Your task to perform on an android device: Open display settings Image 0: 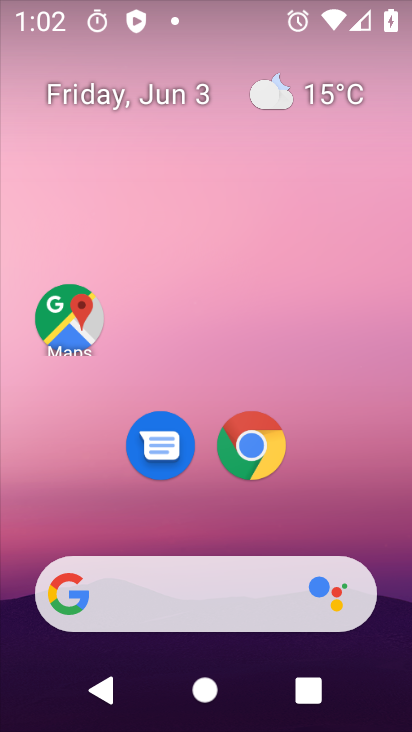
Step 0: drag from (214, 424) to (201, 156)
Your task to perform on an android device: Open display settings Image 1: 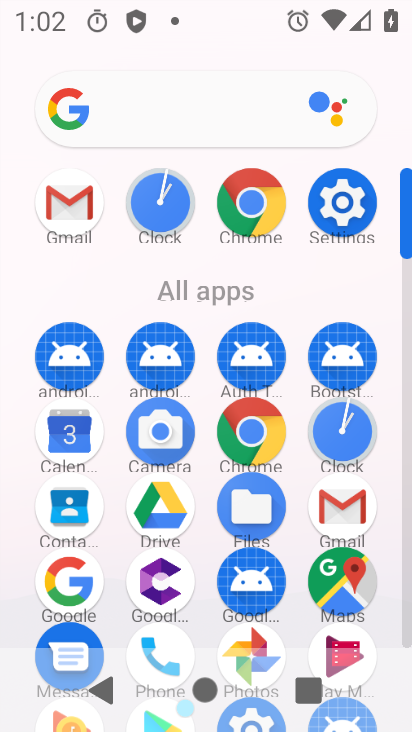
Step 1: click (337, 194)
Your task to perform on an android device: Open display settings Image 2: 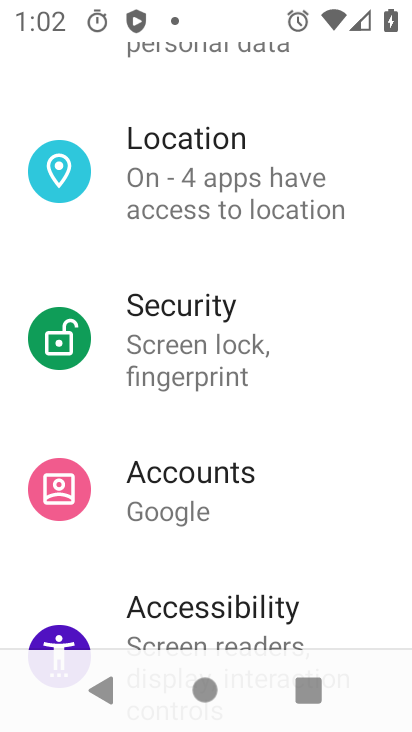
Step 2: drag from (195, 180) to (195, 547)
Your task to perform on an android device: Open display settings Image 3: 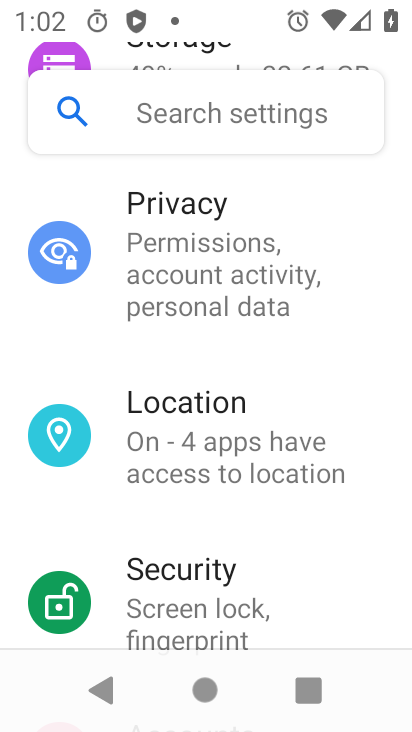
Step 3: drag from (124, 222) to (126, 488)
Your task to perform on an android device: Open display settings Image 4: 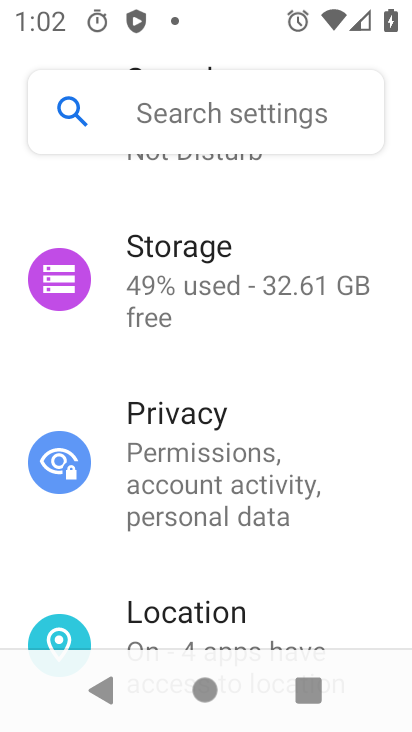
Step 4: drag from (143, 565) to (189, 177)
Your task to perform on an android device: Open display settings Image 5: 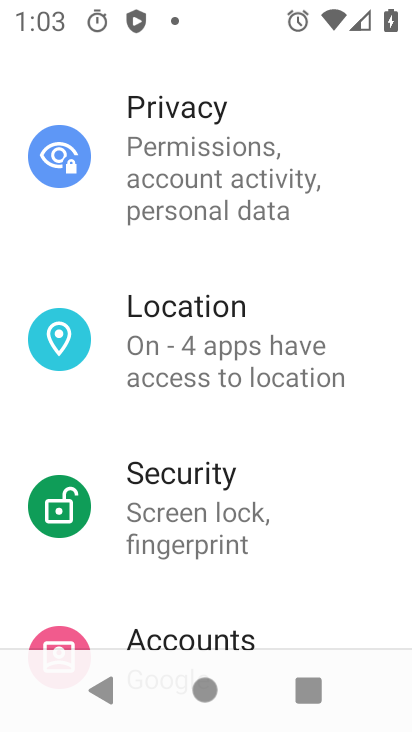
Step 5: drag from (113, 605) to (242, 212)
Your task to perform on an android device: Open display settings Image 6: 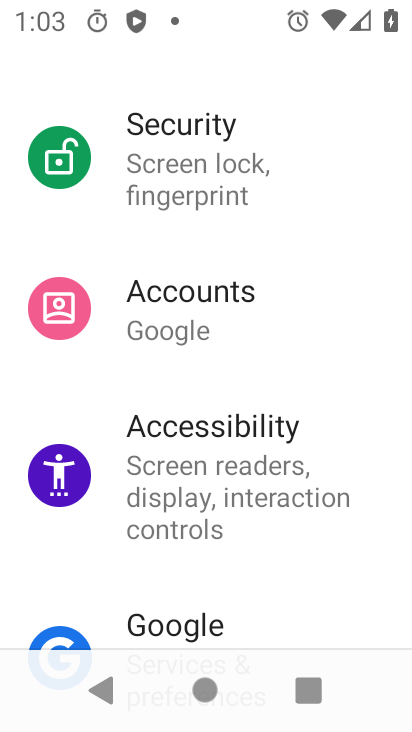
Step 6: drag from (185, 564) to (338, 76)
Your task to perform on an android device: Open display settings Image 7: 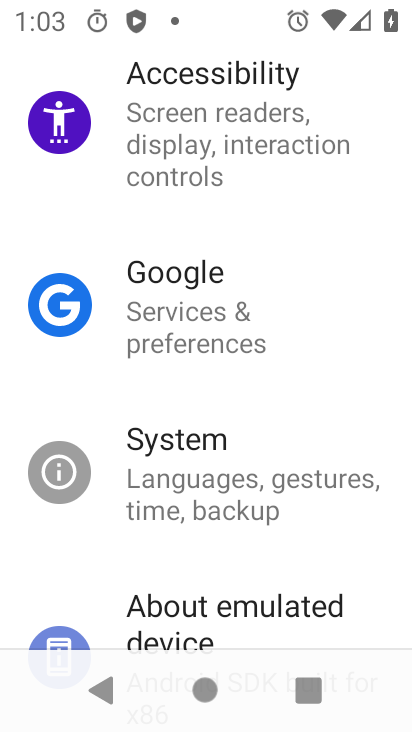
Step 7: drag from (211, 181) to (152, 662)
Your task to perform on an android device: Open display settings Image 8: 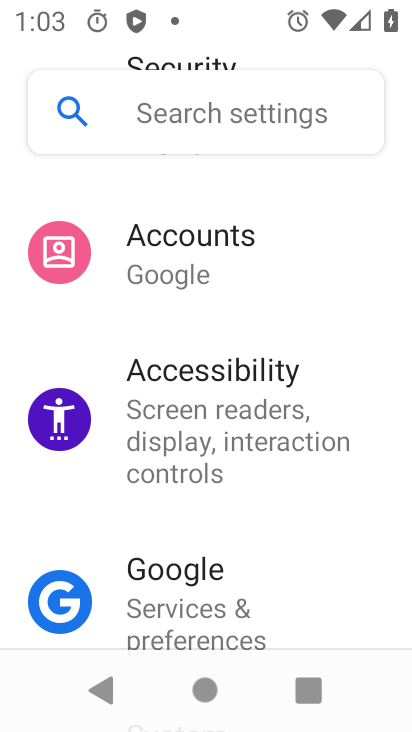
Step 8: drag from (168, 223) to (153, 675)
Your task to perform on an android device: Open display settings Image 9: 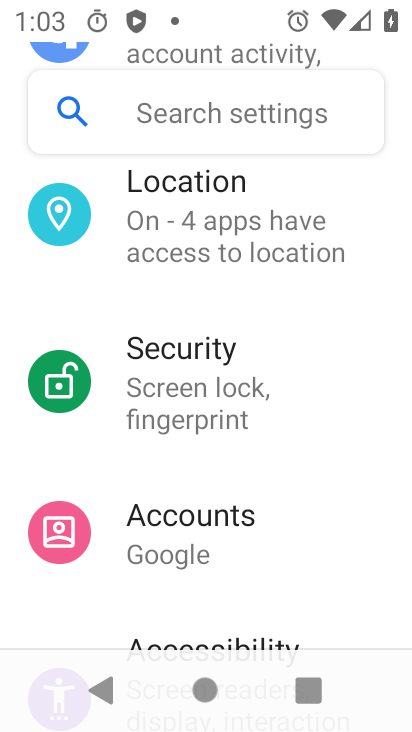
Step 9: drag from (133, 286) to (138, 635)
Your task to perform on an android device: Open display settings Image 10: 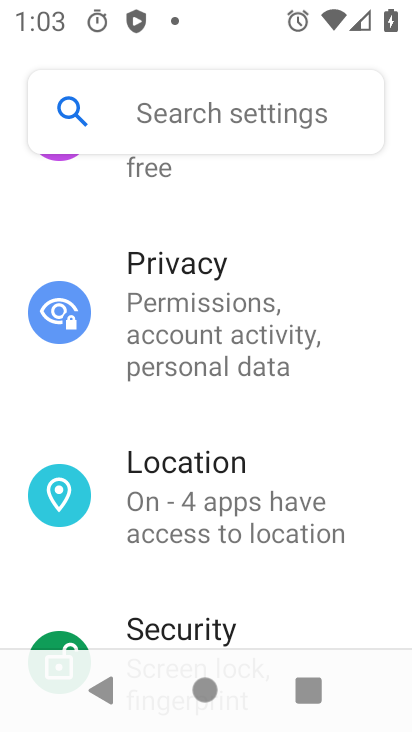
Step 10: drag from (105, 228) to (101, 536)
Your task to perform on an android device: Open display settings Image 11: 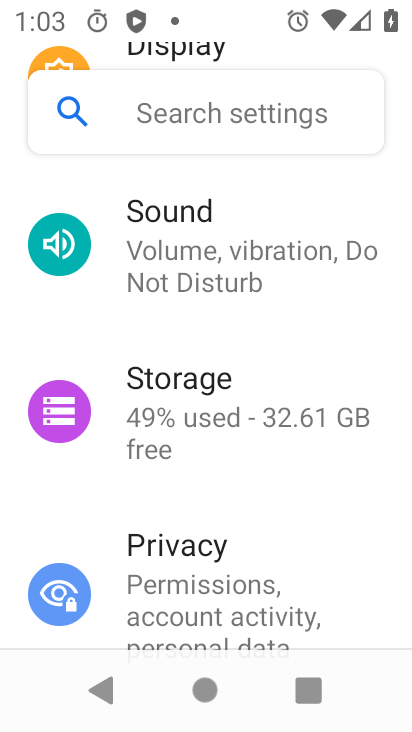
Step 11: drag from (125, 196) to (137, 538)
Your task to perform on an android device: Open display settings Image 12: 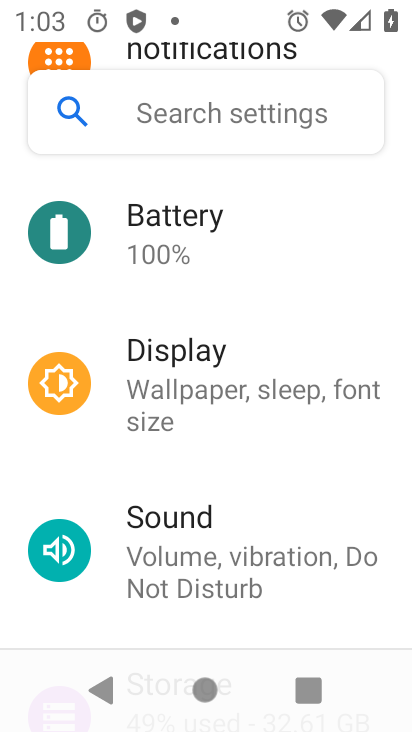
Step 12: click (192, 364)
Your task to perform on an android device: Open display settings Image 13: 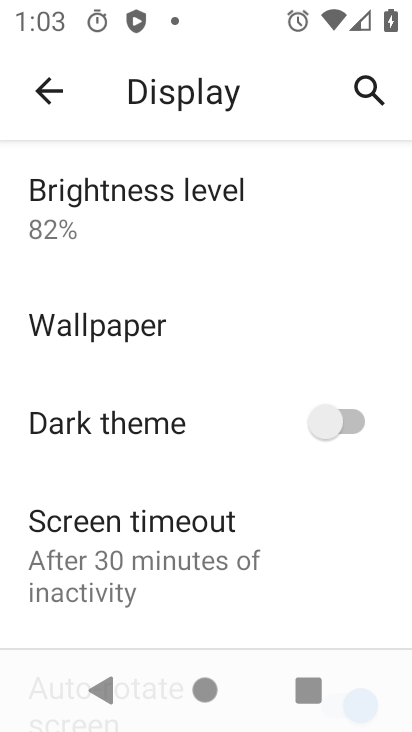
Step 13: task complete